Your task to perform on an android device: install app "Microsoft Authenticator" Image 0: 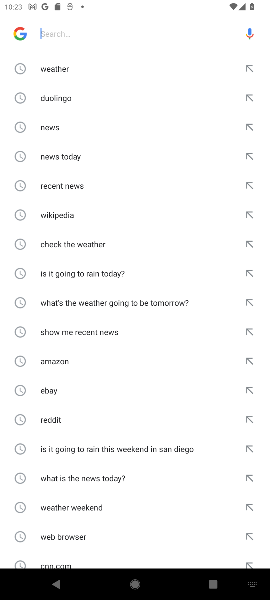
Step 0: press home button
Your task to perform on an android device: install app "Microsoft Authenticator" Image 1: 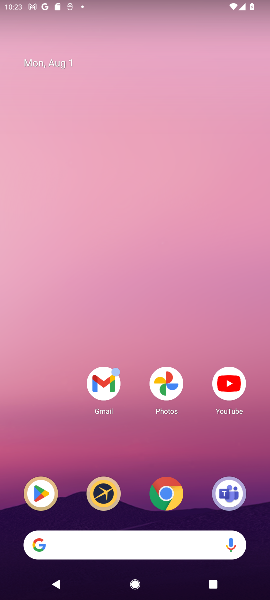
Step 1: click (56, 500)
Your task to perform on an android device: install app "Microsoft Authenticator" Image 2: 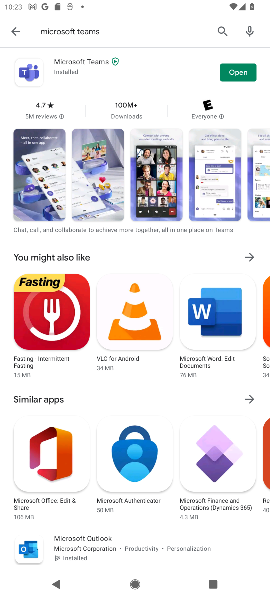
Step 2: click (214, 22)
Your task to perform on an android device: install app "Microsoft Authenticator" Image 3: 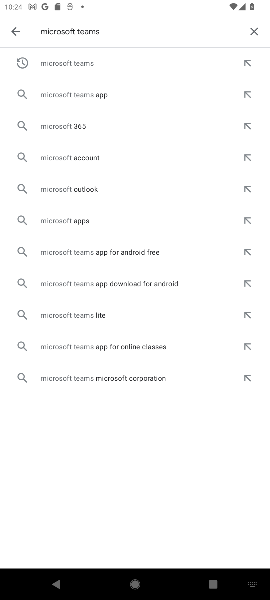
Step 3: click (261, 35)
Your task to perform on an android device: install app "Microsoft Authenticator" Image 4: 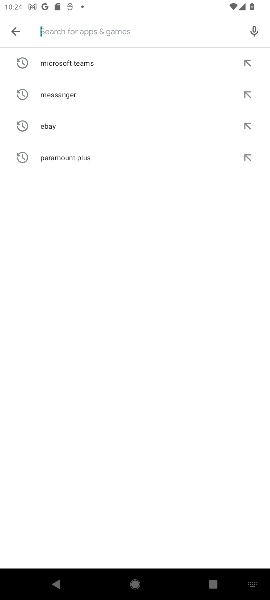
Step 4: type "microsoft"
Your task to perform on an android device: install app "Microsoft Authenticator" Image 5: 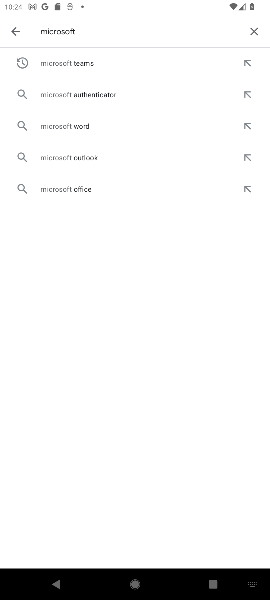
Step 5: type " "
Your task to perform on an android device: install app "Microsoft Authenticator" Image 6: 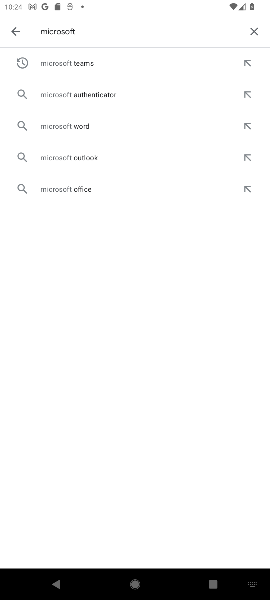
Step 6: click (127, 93)
Your task to perform on an android device: install app "Microsoft Authenticator" Image 7: 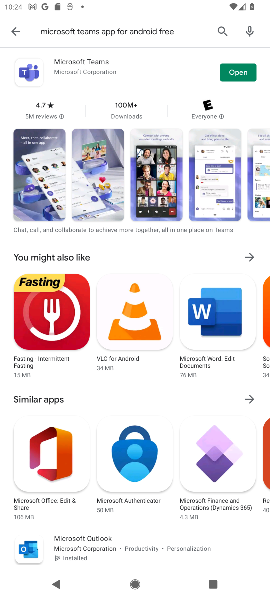
Step 7: click (244, 73)
Your task to perform on an android device: install app "Microsoft Authenticator" Image 8: 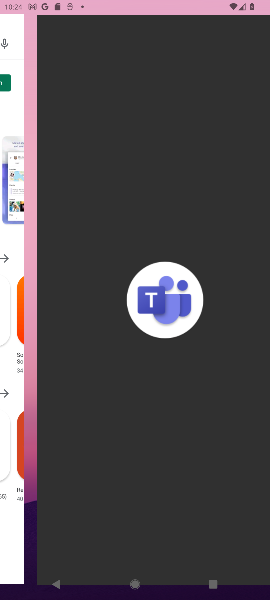
Step 8: task complete